Your task to perform on an android device: Go to Android settings Image 0: 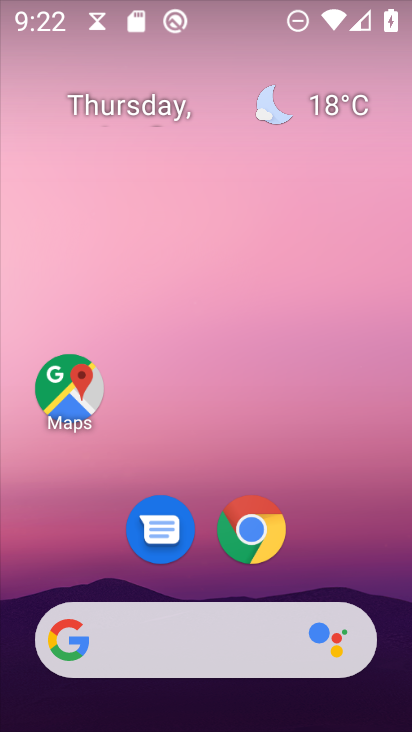
Step 0: drag from (387, 711) to (281, 57)
Your task to perform on an android device: Go to Android settings Image 1: 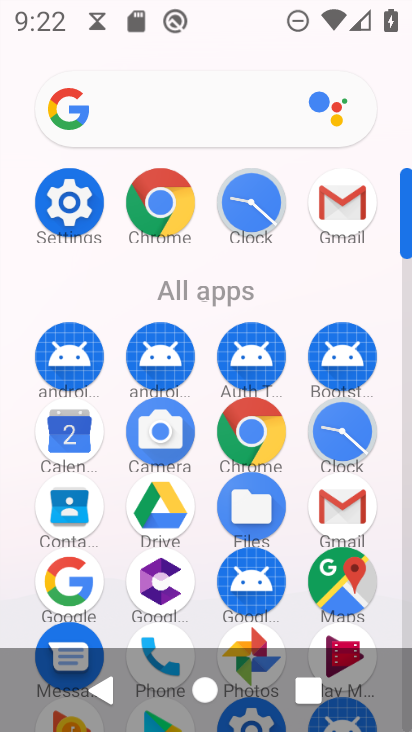
Step 1: click (88, 185)
Your task to perform on an android device: Go to Android settings Image 2: 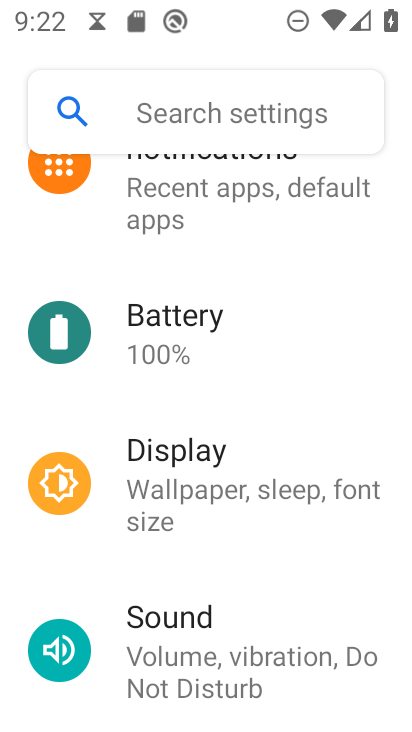
Step 2: task complete